Your task to perform on an android device: Open notification settings Image 0: 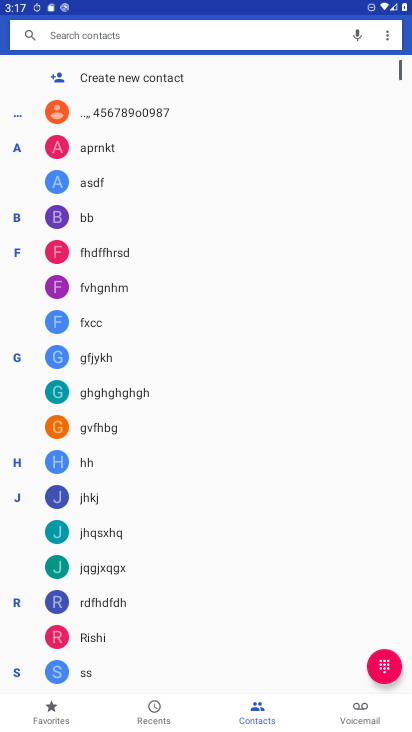
Step 0: press home button
Your task to perform on an android device: Open notification settings Image 1: 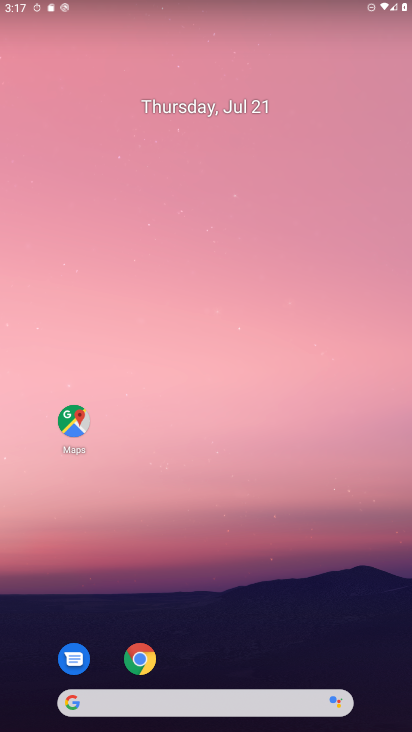
Step 1: drag from (3, 722) to (199, 122)
Your task to perform on an android device: Open notification settings Image 2: 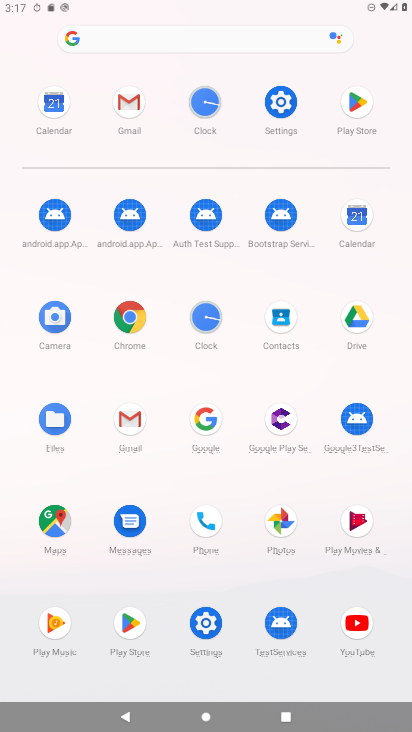
Step 2: click (278, 120)
Your task to perform on an android device: Open notification settings Image 3: 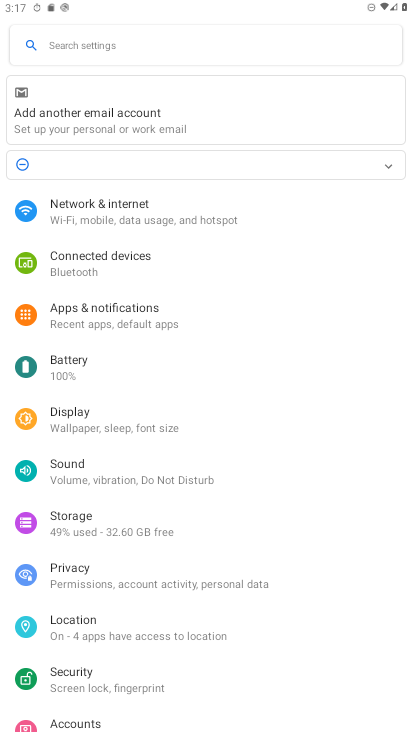
Step 3: click (108, 326)
Your task to perform on an android device: Open notification settings Image 4: 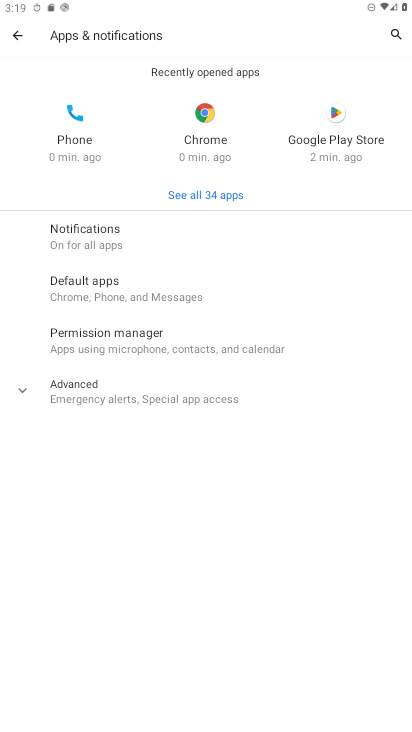
Step 4: click (115, 242)
Your task to perform on an android device: Open notification settings Image 5: 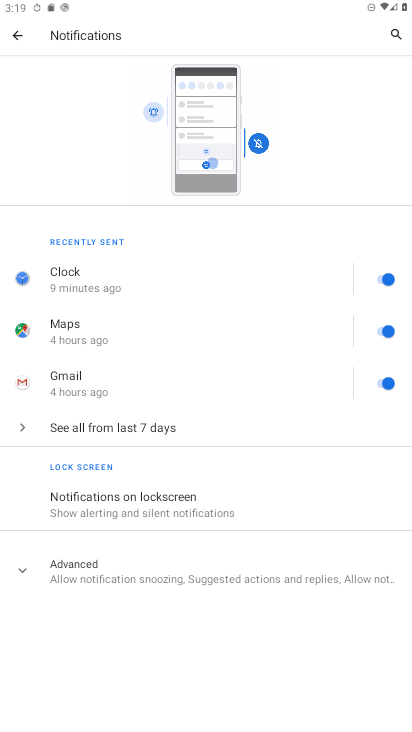
Step 5: task complete